Your task to perform on an android device: toggle wifi Image 0: 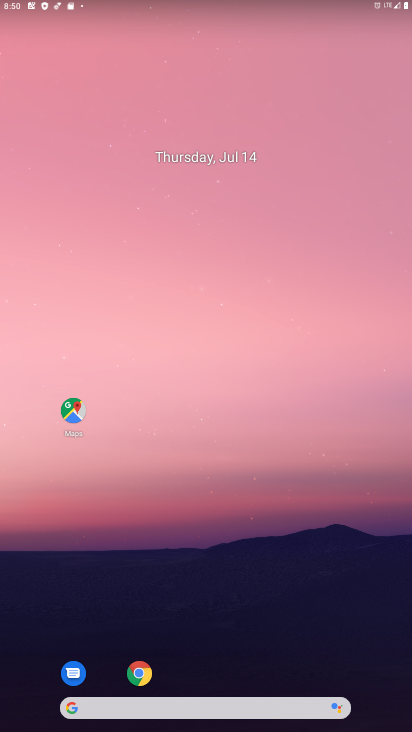
Step 0: drag from (198, 699) to (201, 275)
Your task to perform on an android device: toggle wifi Image 1: 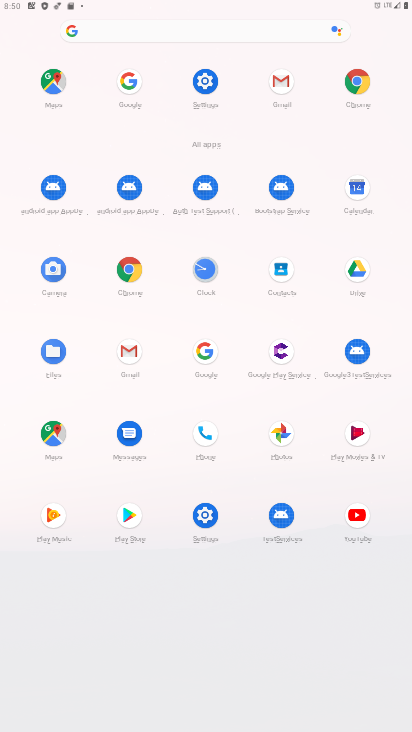
Step 1: click (206, 81)
Your task to perform on an android device: toggle wifi Image 2: 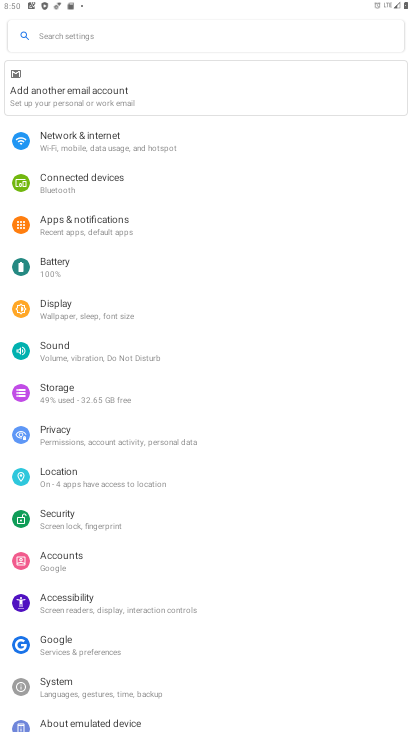
Step 2: click (91, 135)
Your task to perform on an android device: toggle wifi Image 3: 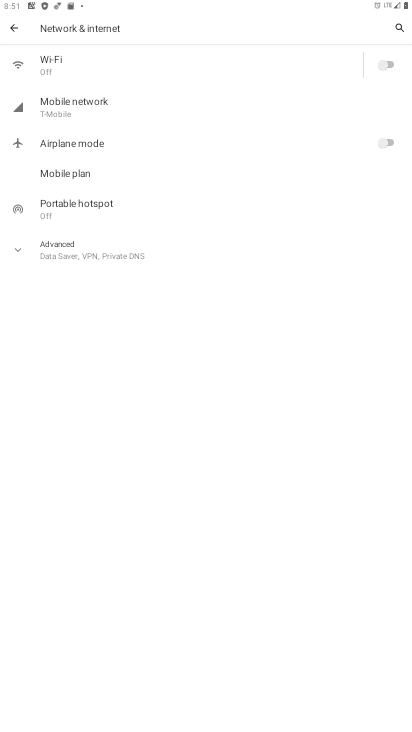
Step 3: click (386, 64)
Your task to perform on an android device: toggle wifi Image 4: 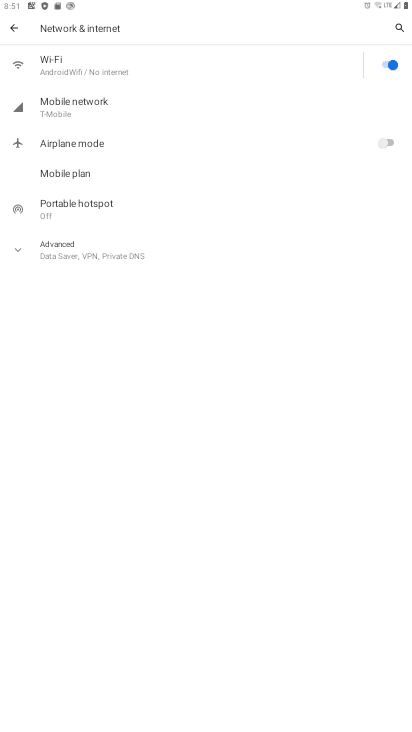
Step 4: task complete